Your task to perform on an android device: Go to Maps Image 0: 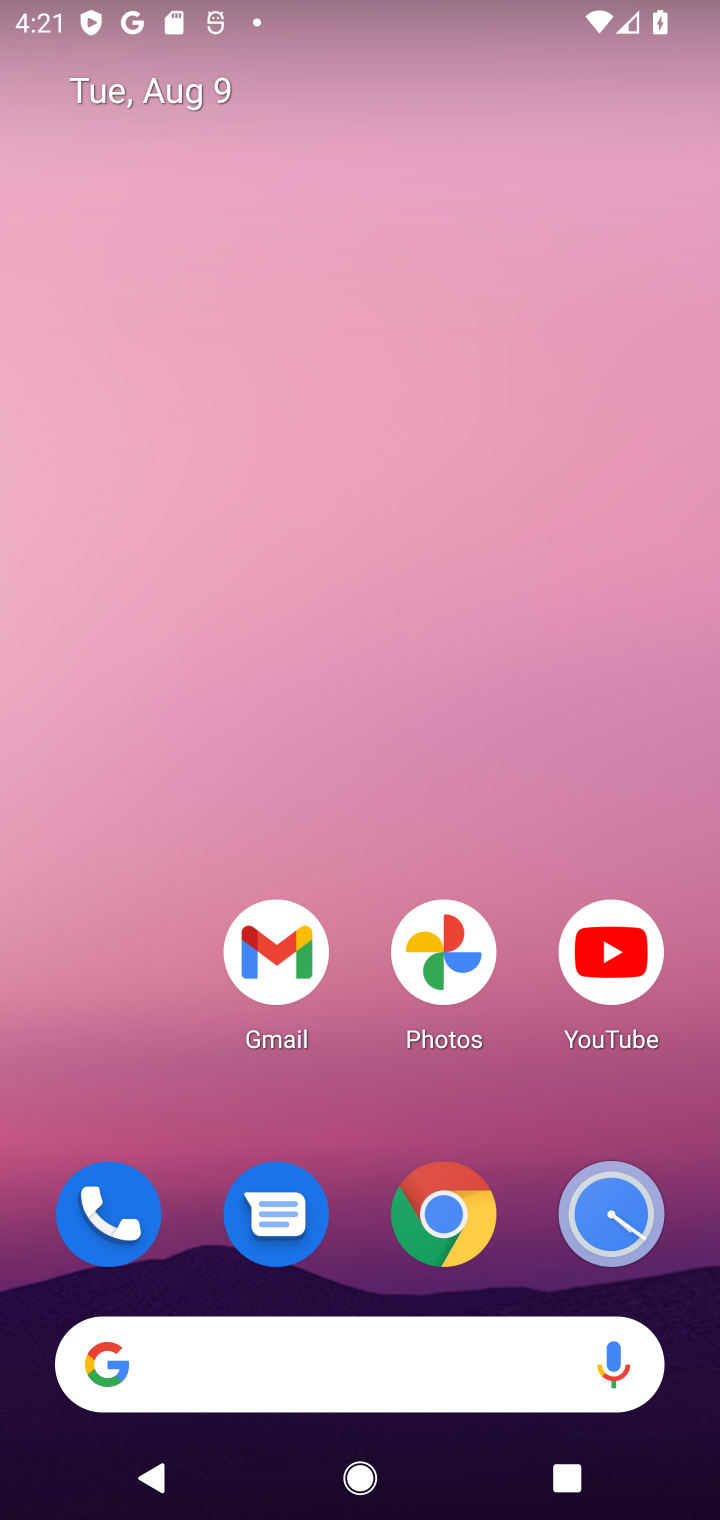
Step 0: drag from (440, 1419) to (414, 472)
Your task to perform on an android device: Go to Maps Image 1: 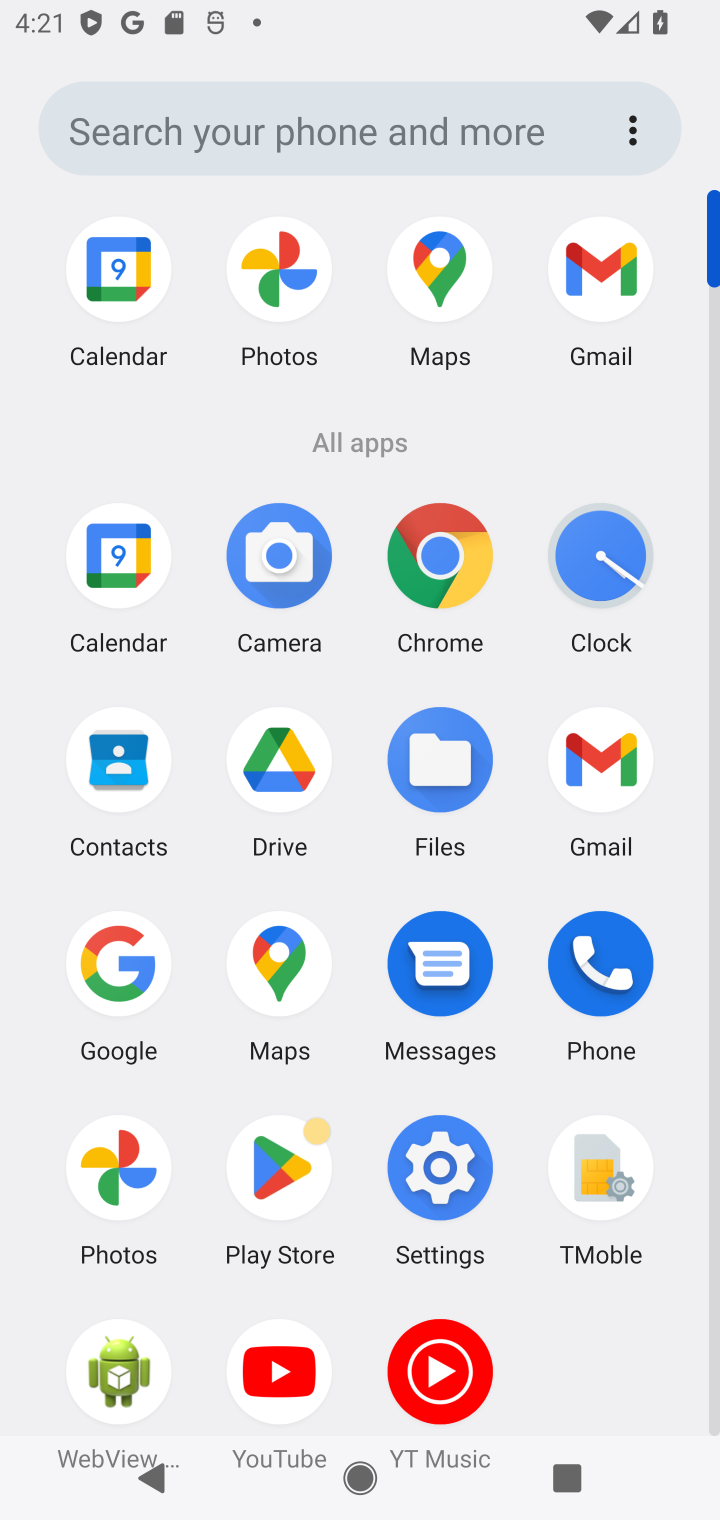
Step 1: click (424, 281)
Your task to perform on an android device: Go to Maps Image 2: 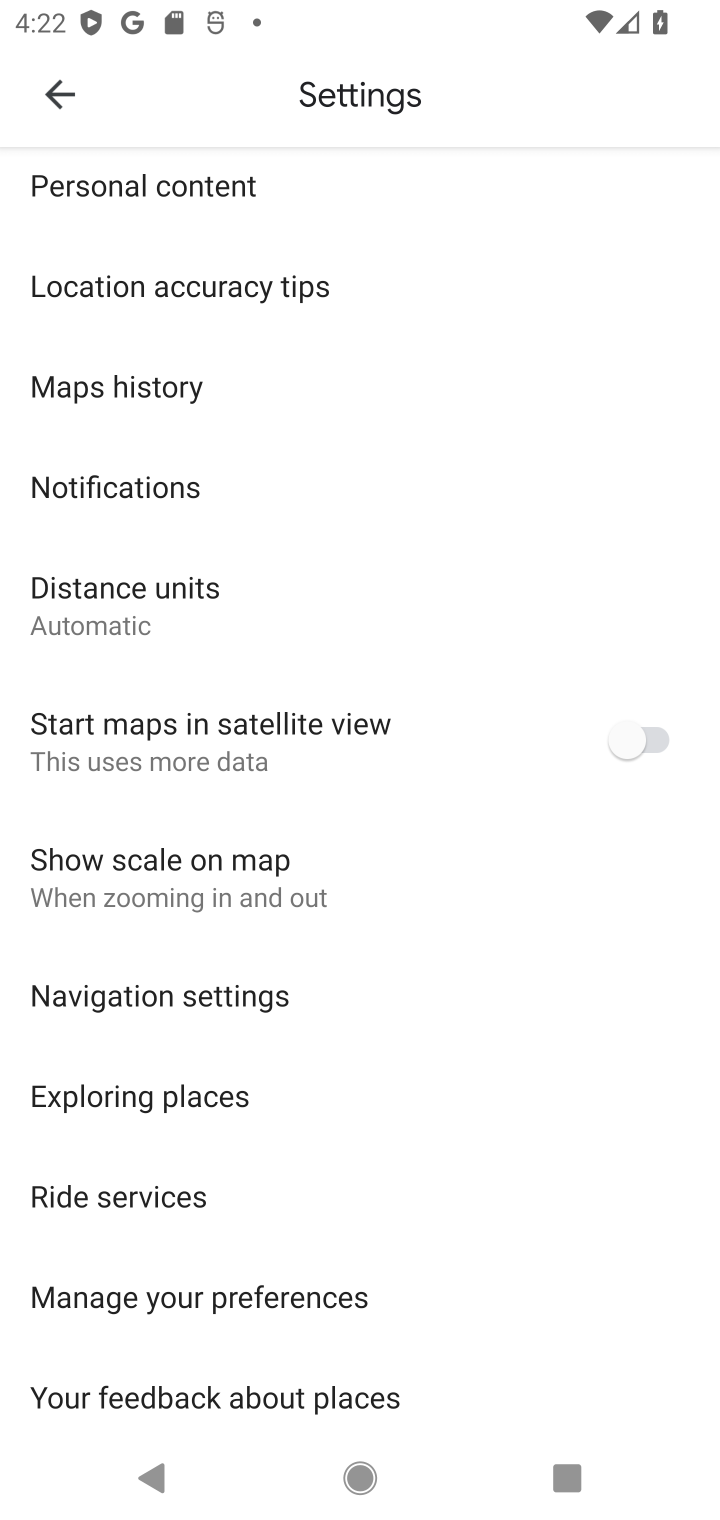
Step 2: click (78, 103)
Your task to perform on an android device: Go to Maps Image 3: 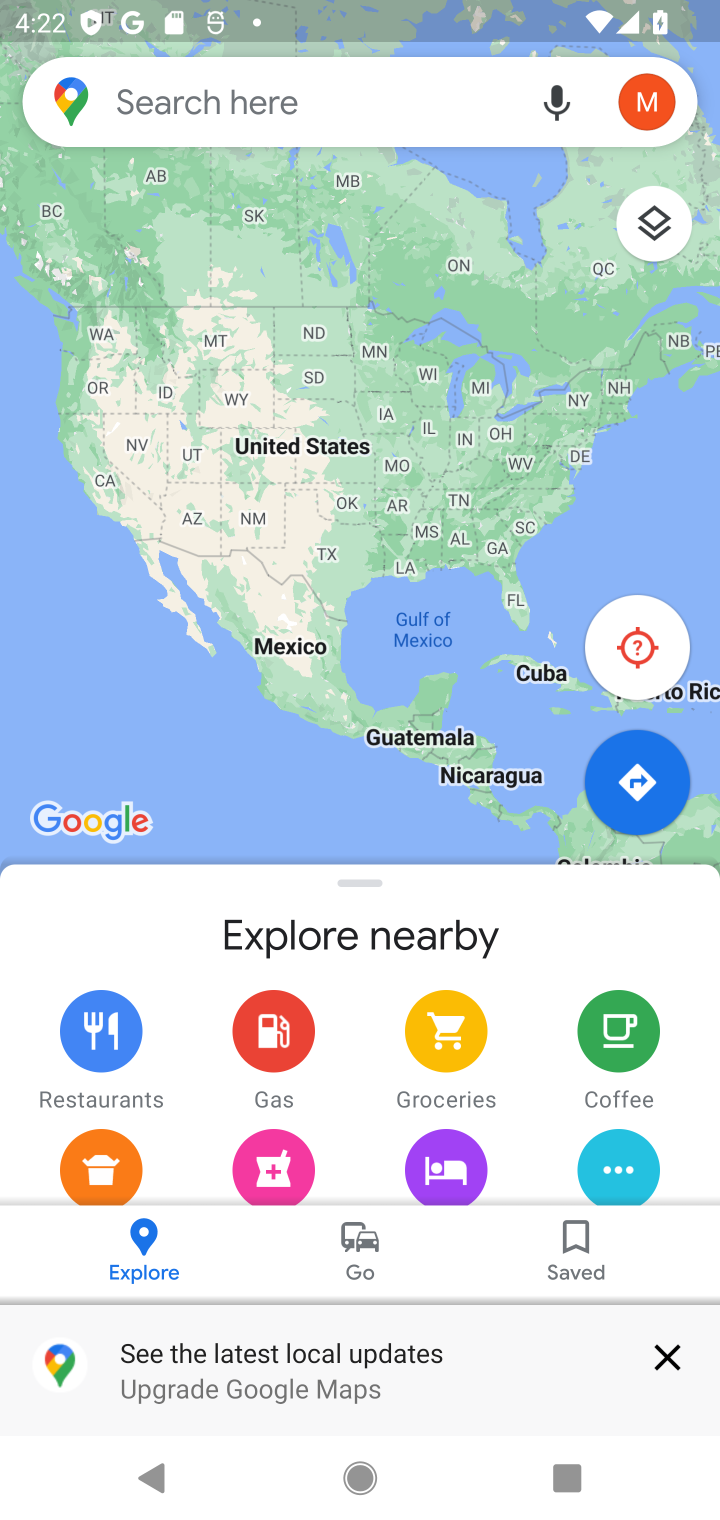
Step 3: click (647, 649)
Your task to perform on an android device: Go to Maps Image 4: 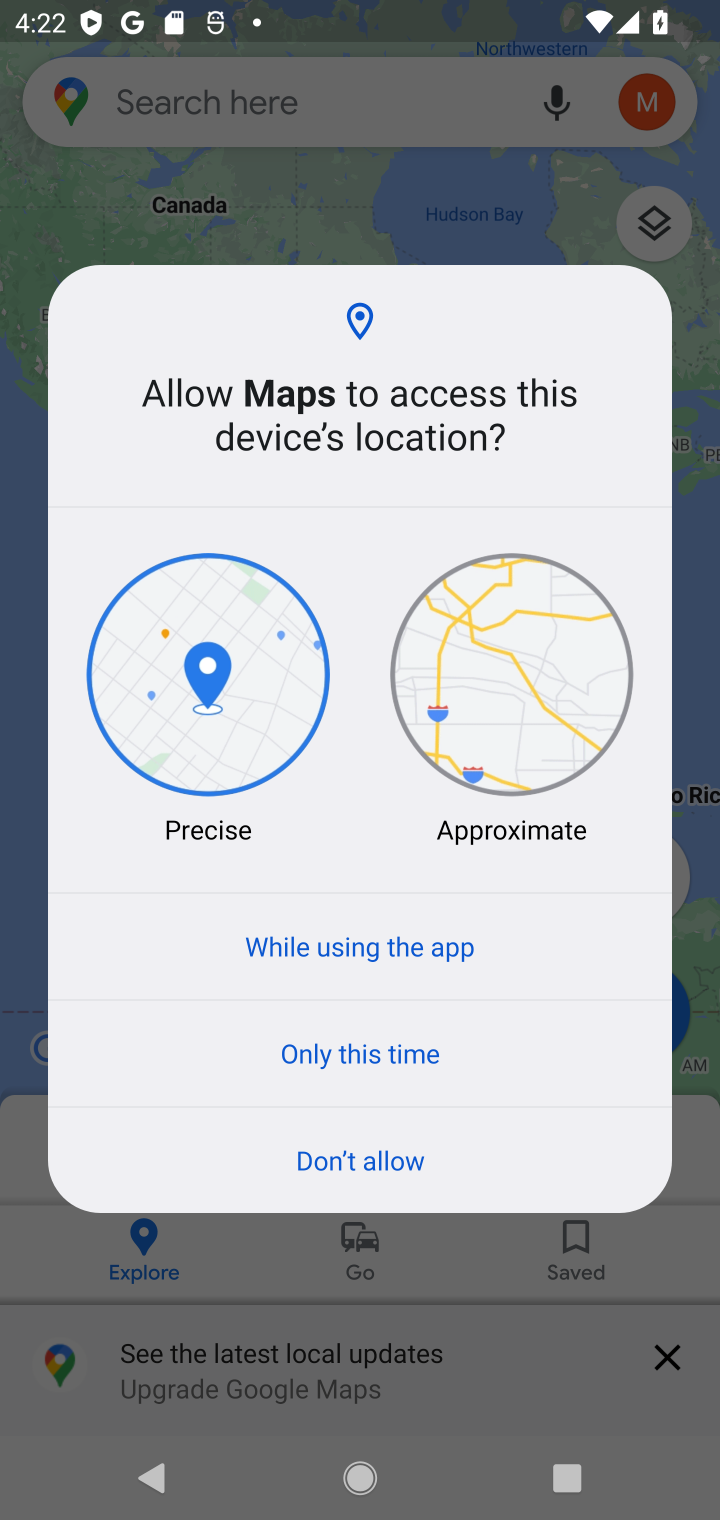
Step 4: click (656, 1367)
Your task to perform on an android device: Go to Maps Image 5: 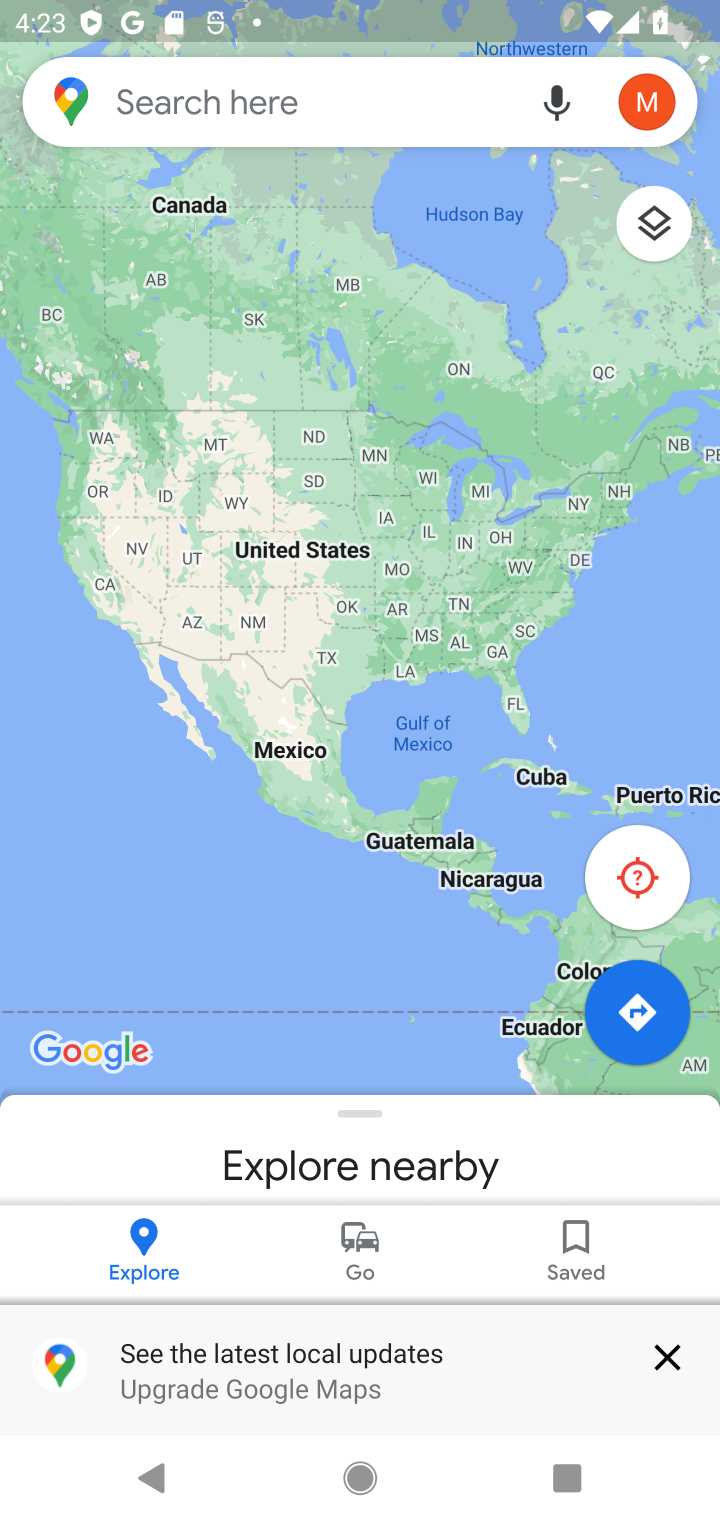
Step 5: click (332, 941)
Your task to perform on an android device: Go to Maps Image 6: 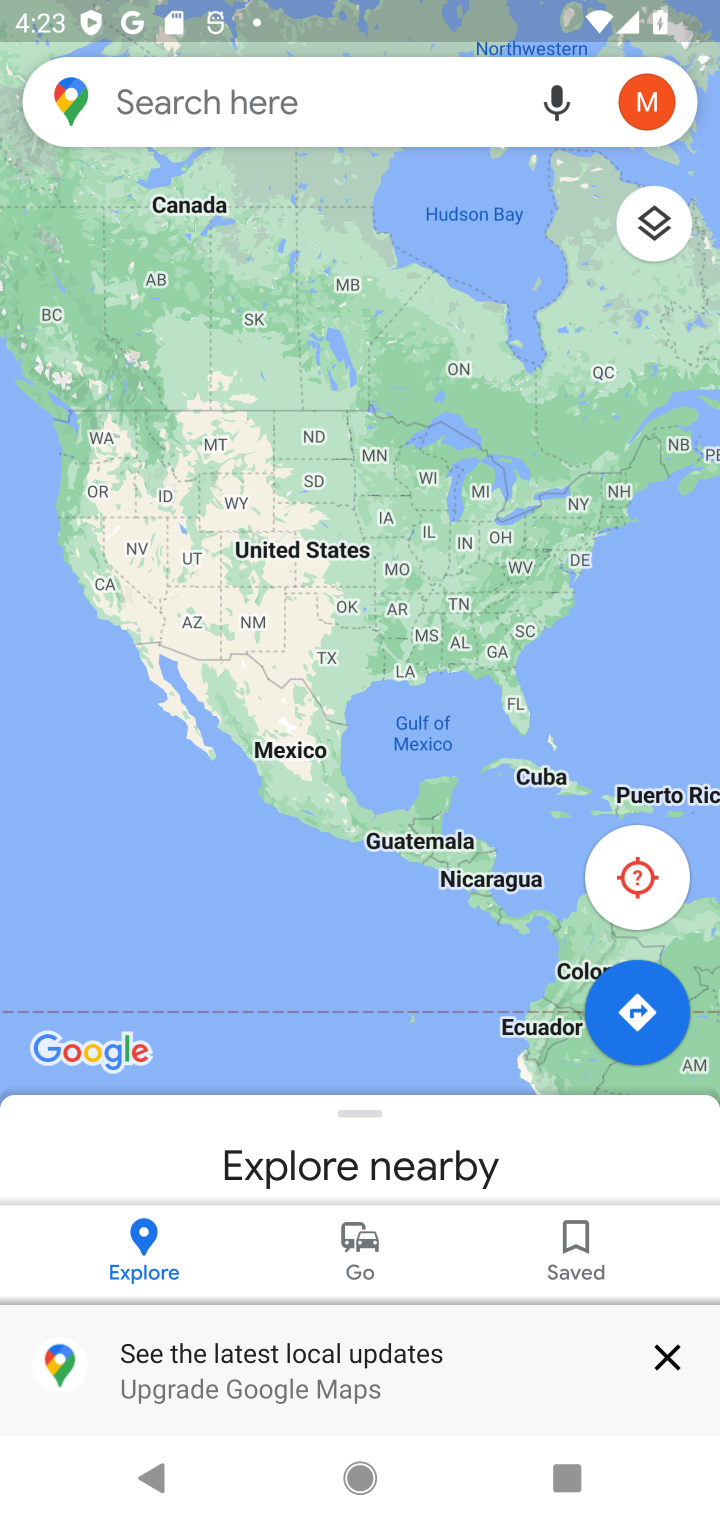
Step 6: click (332, 942)
Your task to perform on an android device: Go to Maps Image 7: 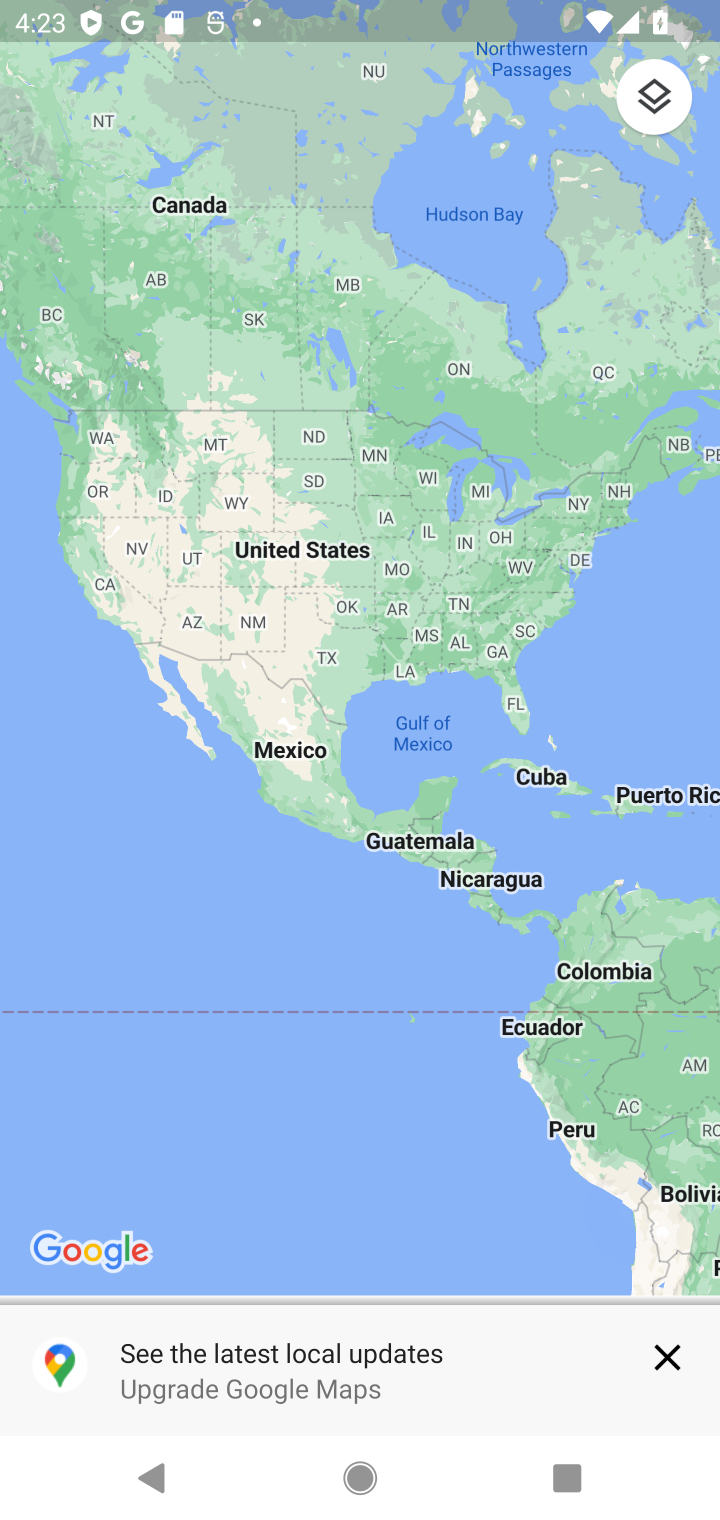
Step 7: click (406, 977)
Your task to perform on an android device: Go to Maps Image 8: 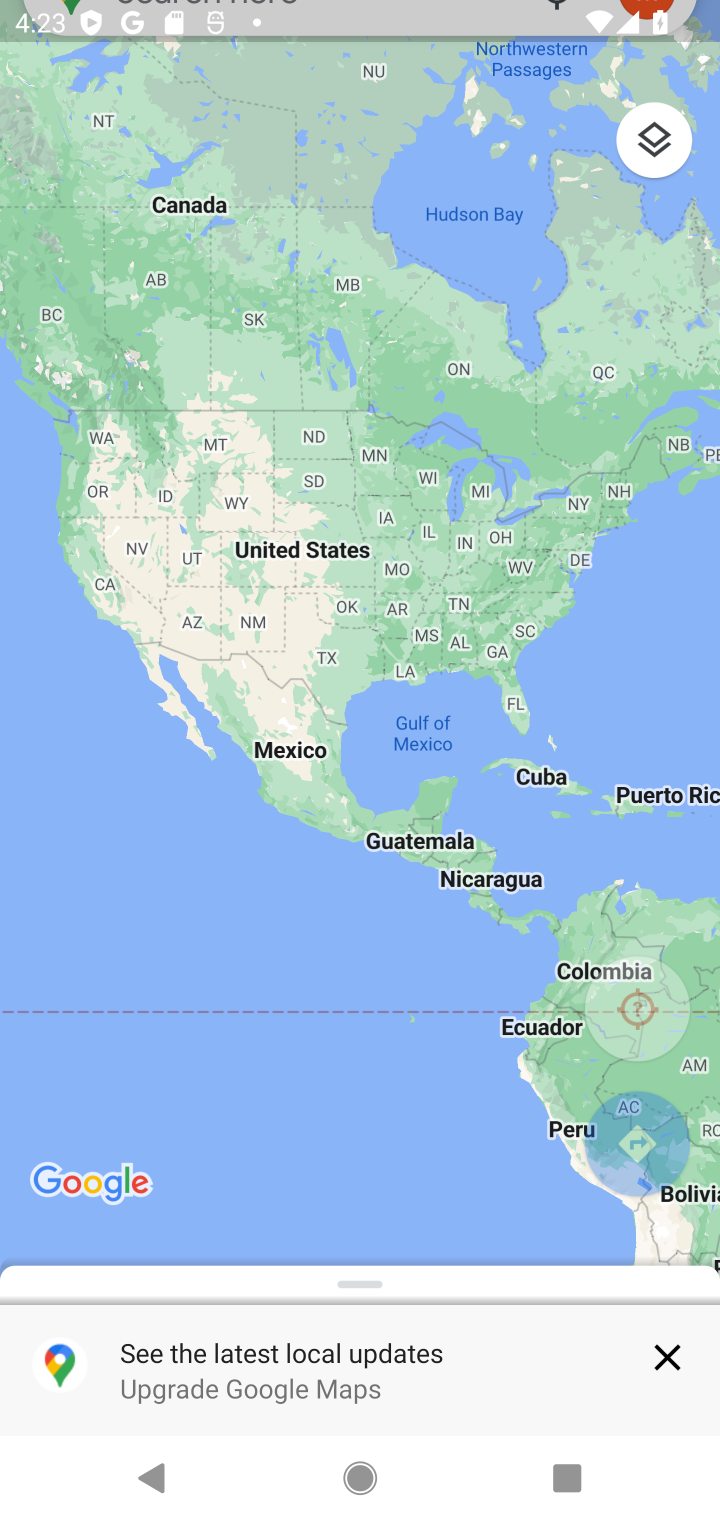
Step 8: click (406, 957)
Your task to perform on an android device: Go to Maps Image 9: 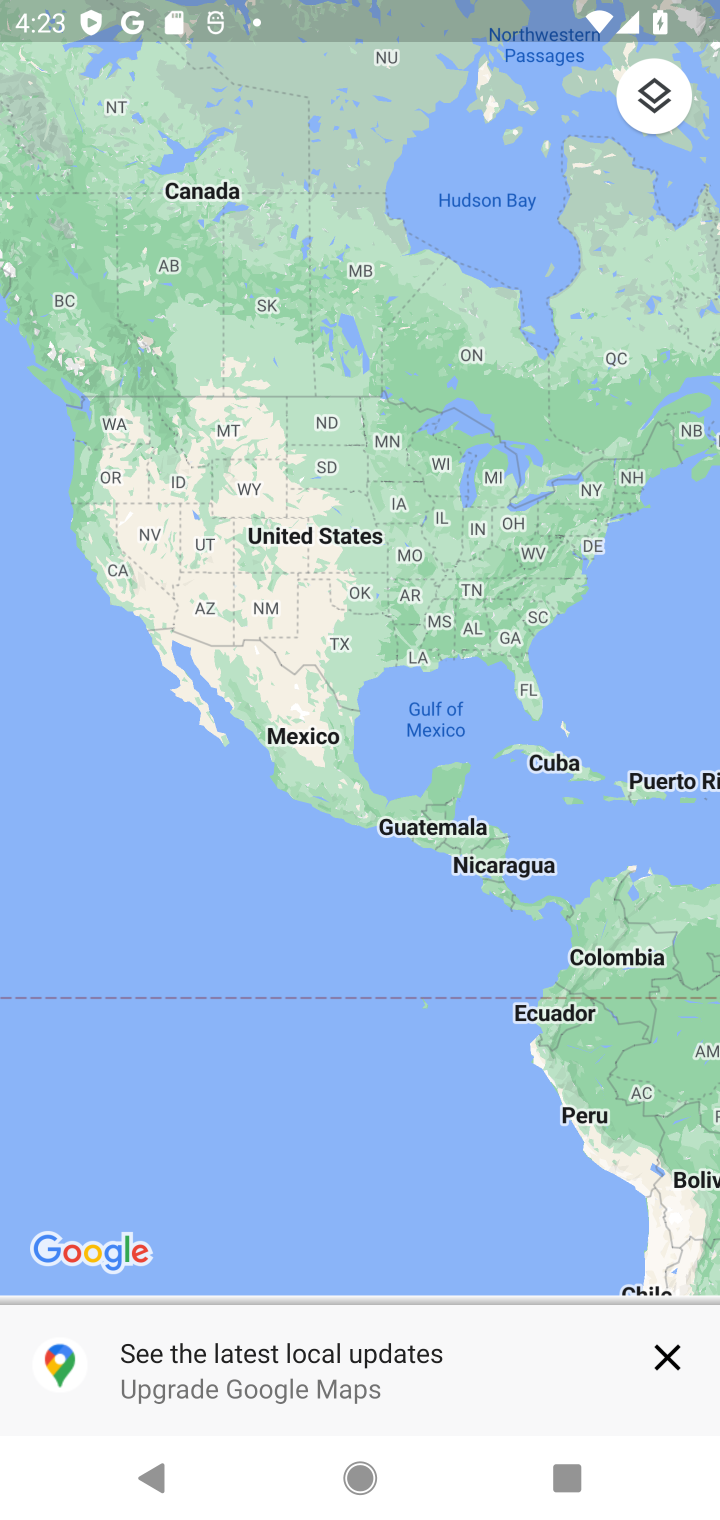
Step 9: task complete